Your task to perform on an android device: add a label to a message in the gmail app Image 0: 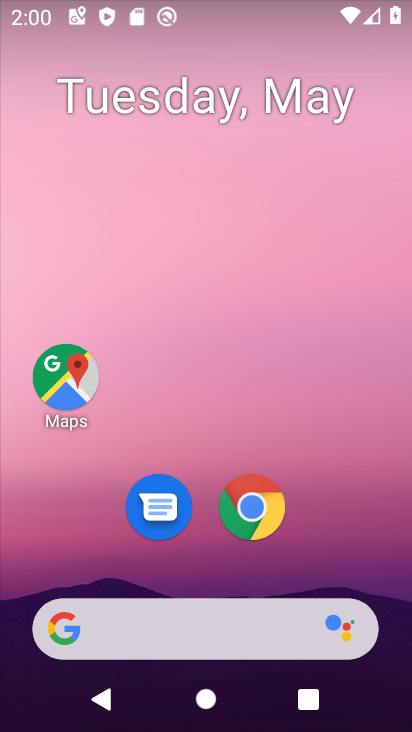
Step 0: drag from (203, 576) to (248, 33)
Your task to perform on an android device: add a label to a message in the gmail app Image 1: 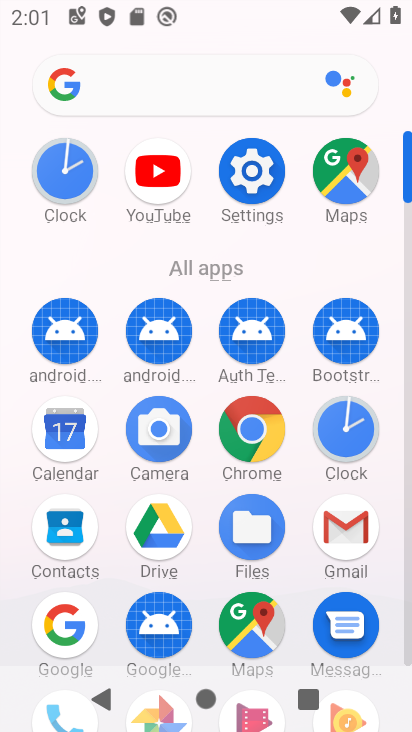
Step 1: click (335, 533)
Your task to perform on an android device: add a label to a message in the gmail app Image 2: 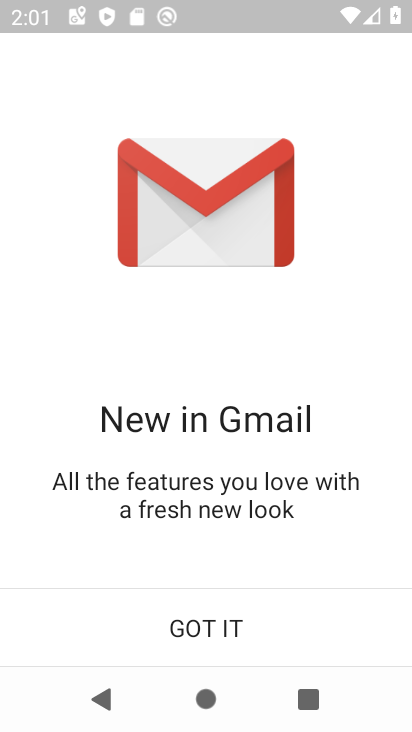
Step 2: click (205, 628)
Your task to perform on an android device: add a label to a message in the gmail app Image 3: 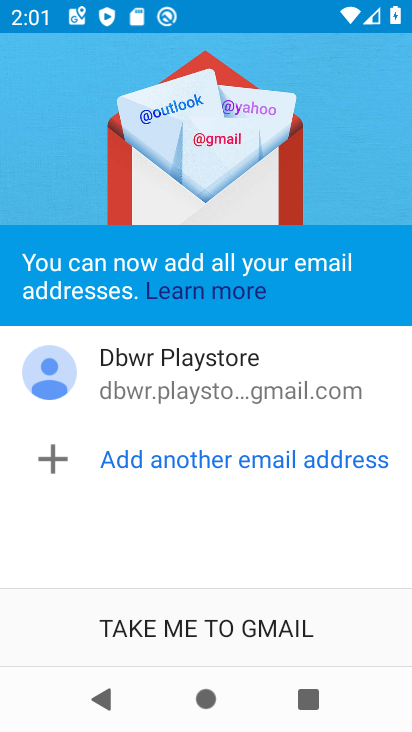
Step 3: click (150, 633)
Your task to perform on an android device: add a label to a message in the gmail app Image 4: 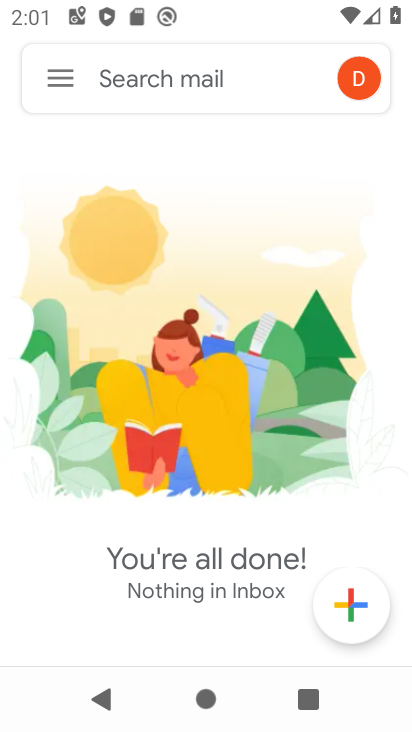
Step 4: click (55, 76)
Your task to perform on an android device: add a label to a message in the gmail app Image 5: 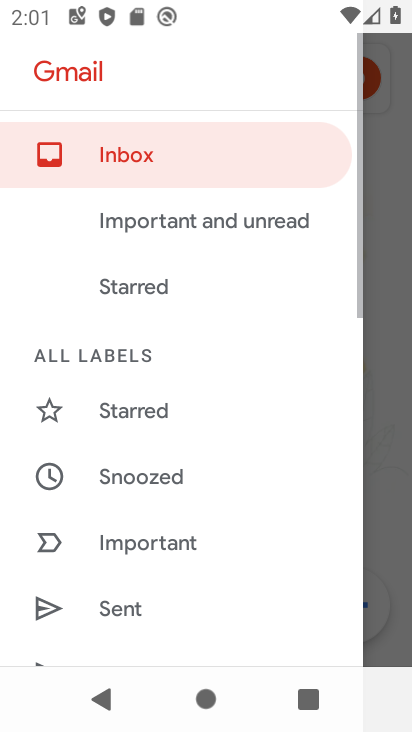
Step 5: drag from (192, 601) to (205, 321)
Your task to perform on an android device: add a label to a message in the gmail app Image 6: 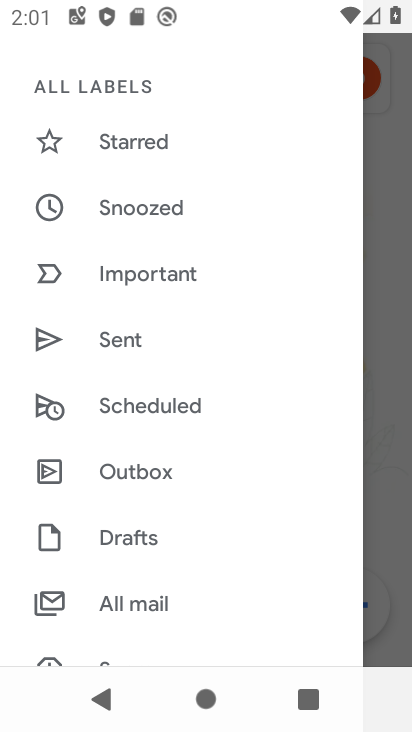
Step 6: click (137, 604)
Your task to perform on an android device: add a label to a message in the gmail app Image 7: 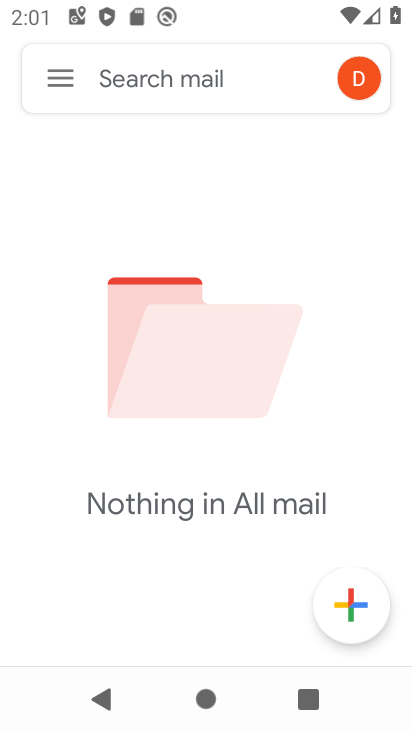
Step 7: task complete